Your task to perform on an android device: install app "DoorDash - Dasher" Image 0: 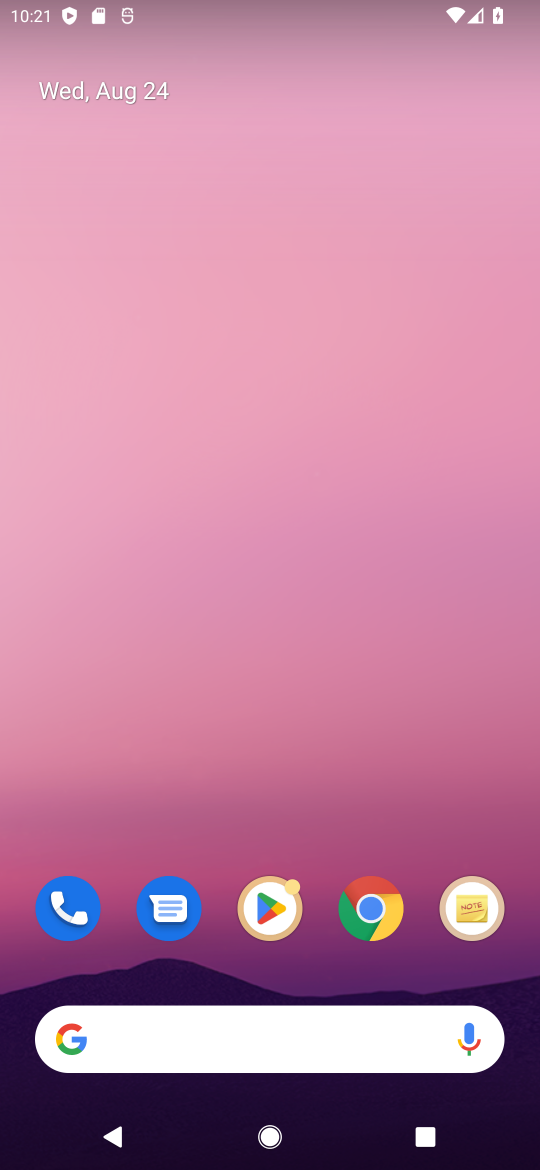
Step 0: click (280, 935)
Your task to perform on an android device: install app "DoorDash - Dasher" Image 1: 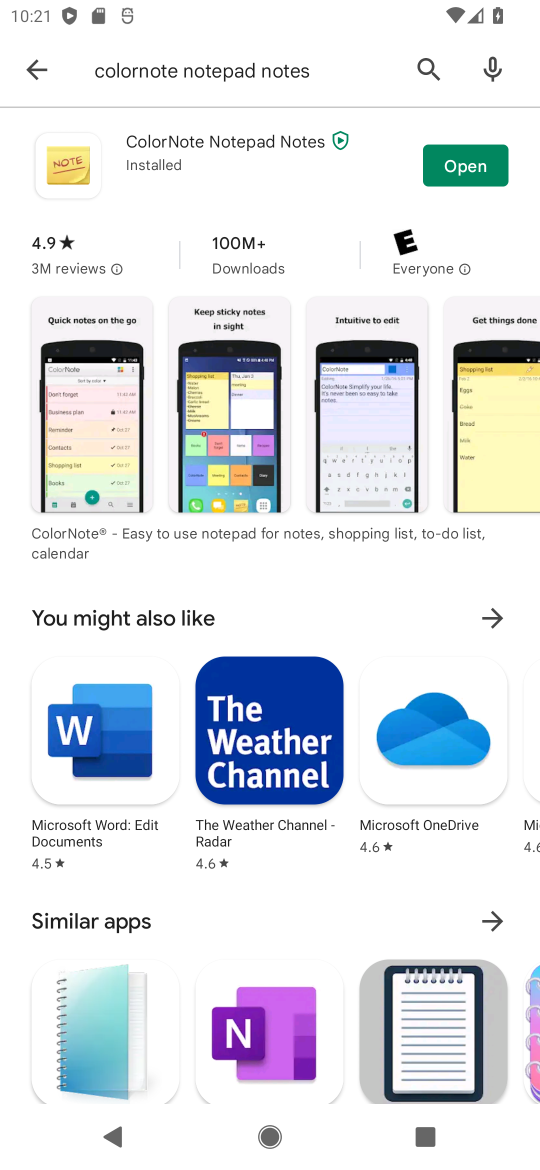
Step 1: click (422, 83)
Your task to perform on an android device: install app "DoorDash - Dasher" Image 2: 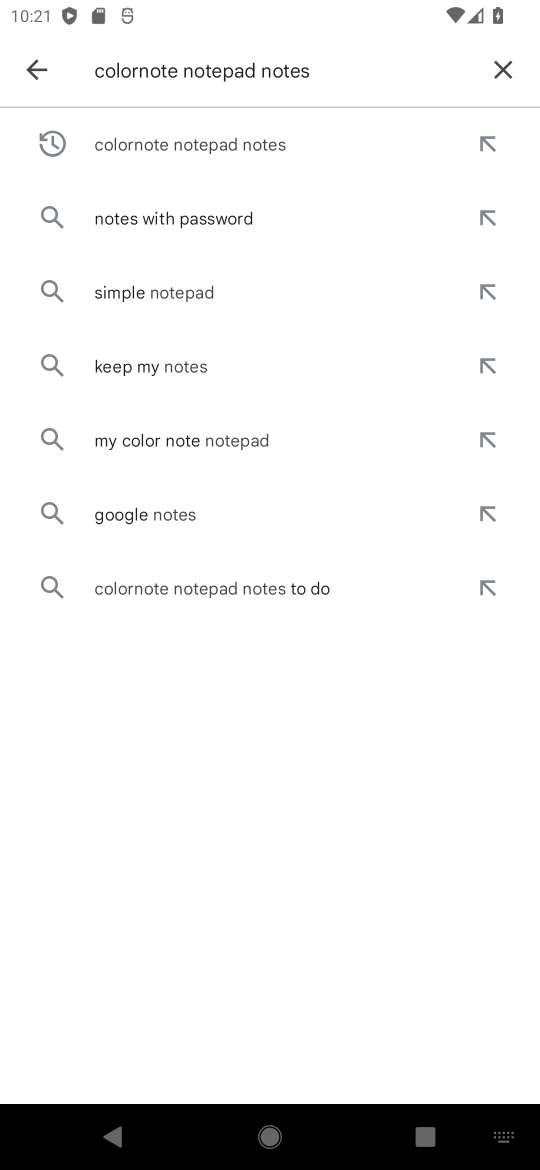
Step 2: click (501, 68)
Your task to perform on an android device: install app "DoorDash - Dasher" Image 3: 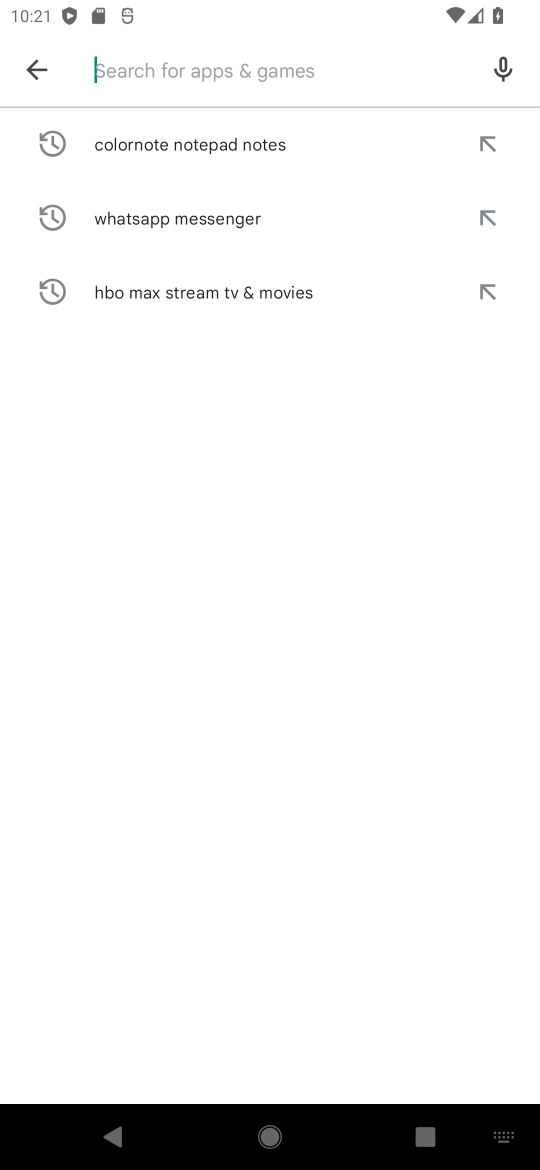
Step 3: type "DoorDash"
Your task to perform on an android device: install app "DoorDash - Dasher" Image 4: 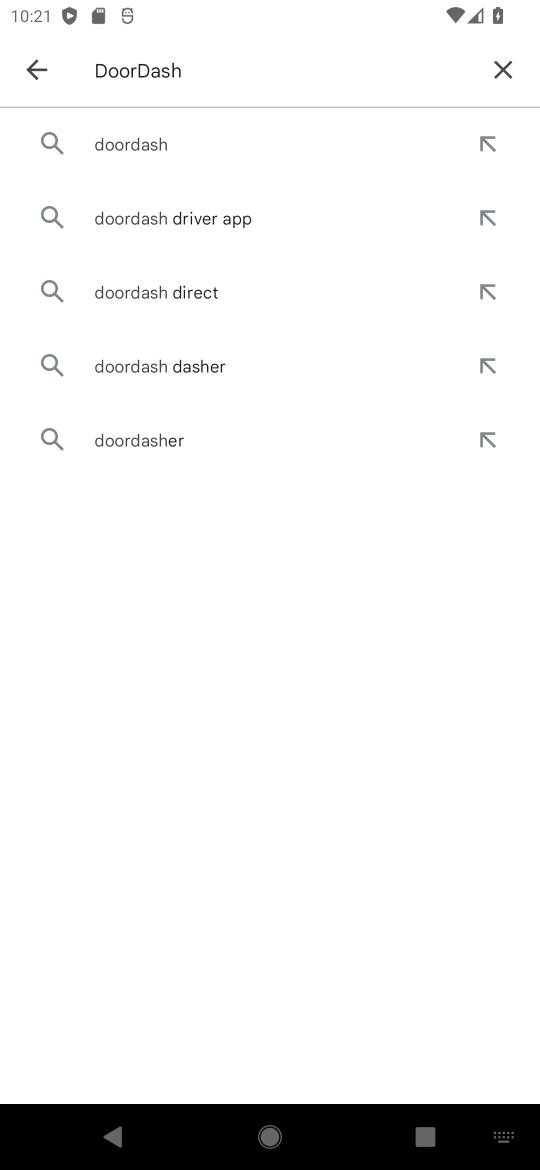
Step 4: click (157, 126)
Your task to perform on an android device: install app "DoorDash - Dasher" Image 5: 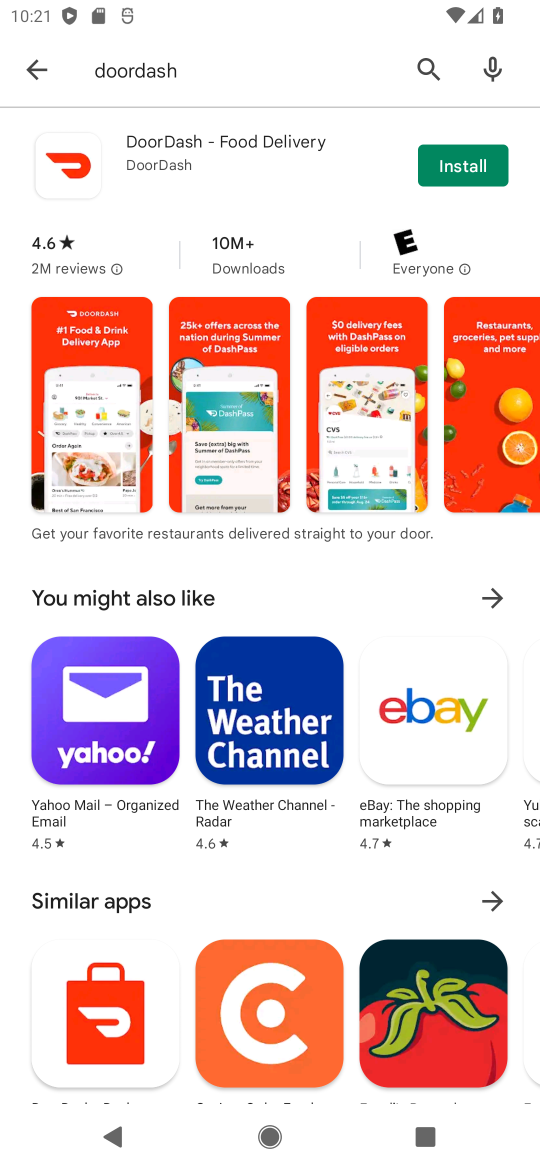
Step 5: click (444, 174)
Your task to perform on an android device: install app "DoorDash - Dasher" Image 6: 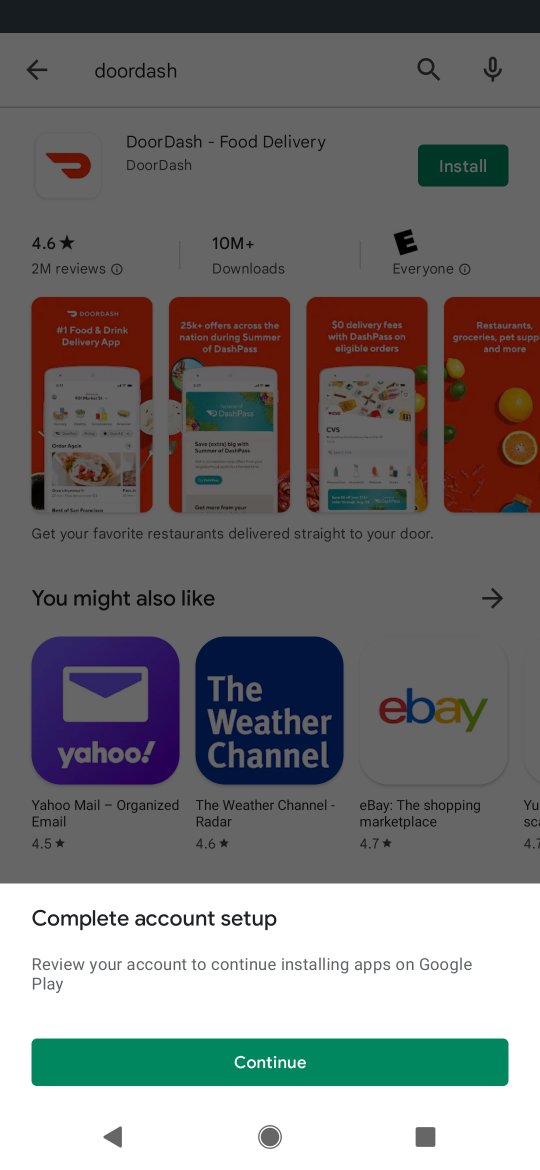
Step 6: click (335, 1053)
Your task to perform on an android device: install app "DoorDash - Dasher" Image 7: 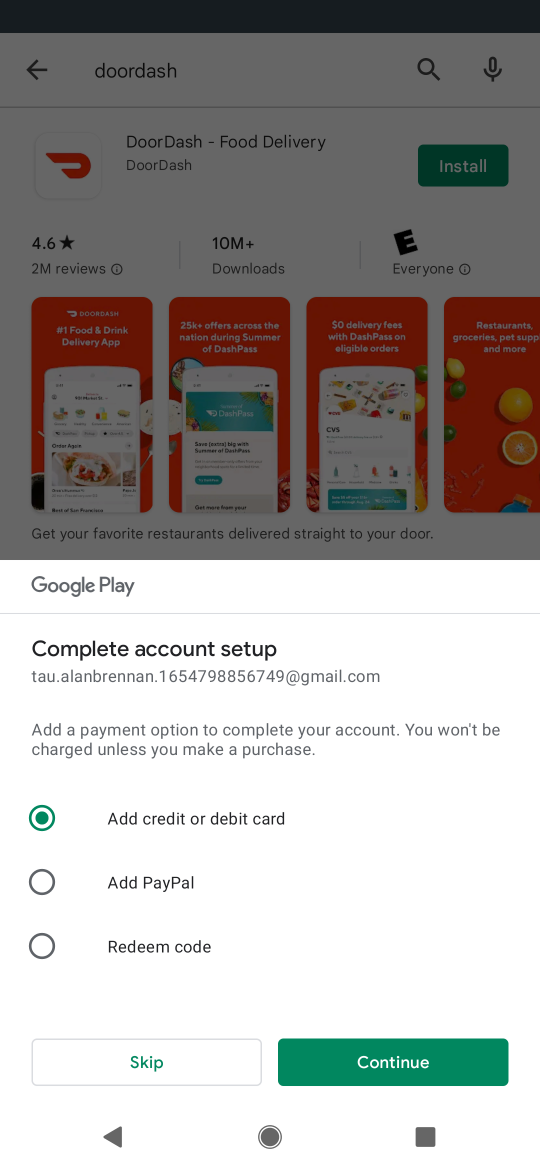
Step 7: click (202, 1058)
Your task to perform on an android device: install app "DoorDash - Dasher" Image 8: 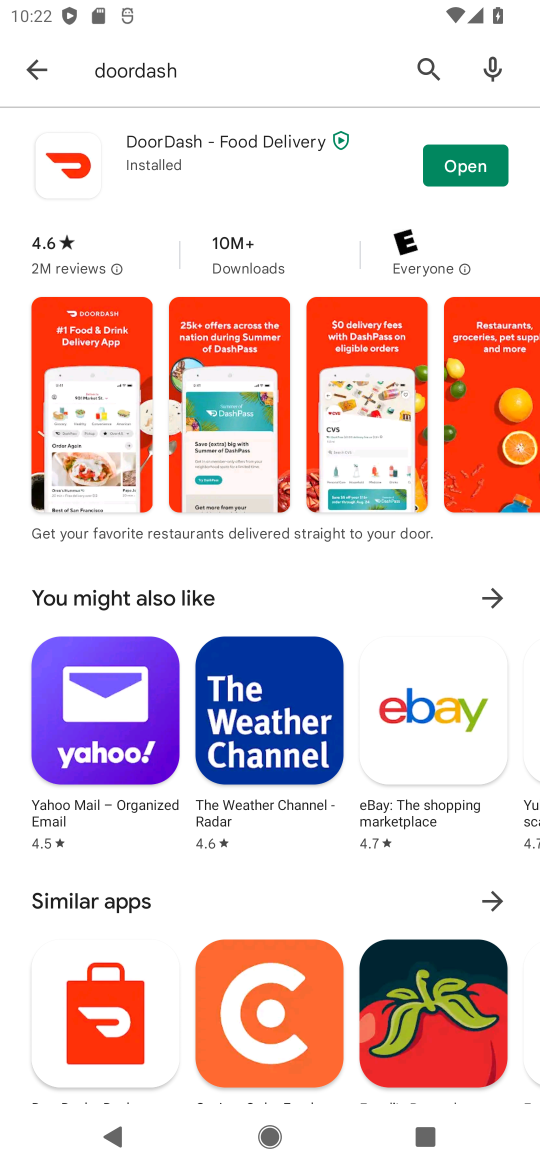
Step 8: task complete